Your task to perform on an android device: open chrome and create a bookmark for the current page Image 0: 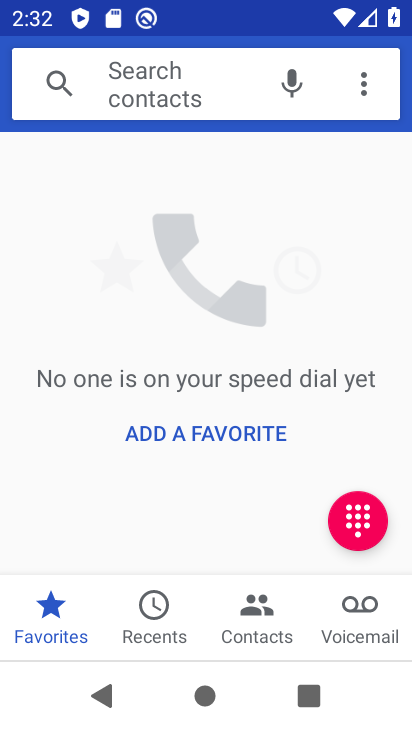
Step 0: press home button
Your task to perform on an android device: open chrome and create a bookmark for the current page Image 1: 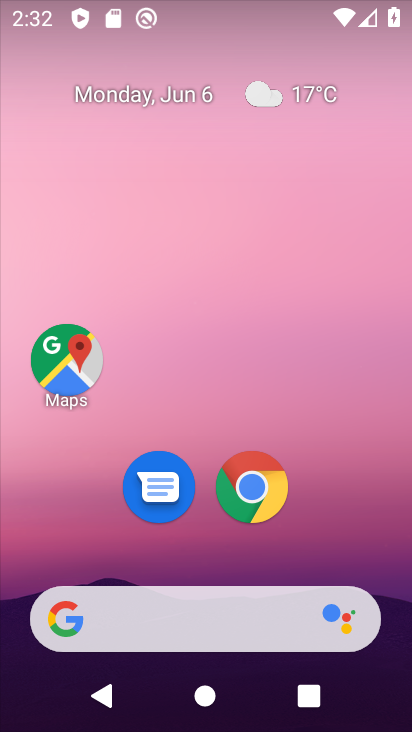
Step 1: click (216, 497)
Your task to perform on an android device: open chrome and create a bookmark for the current page Image 2: 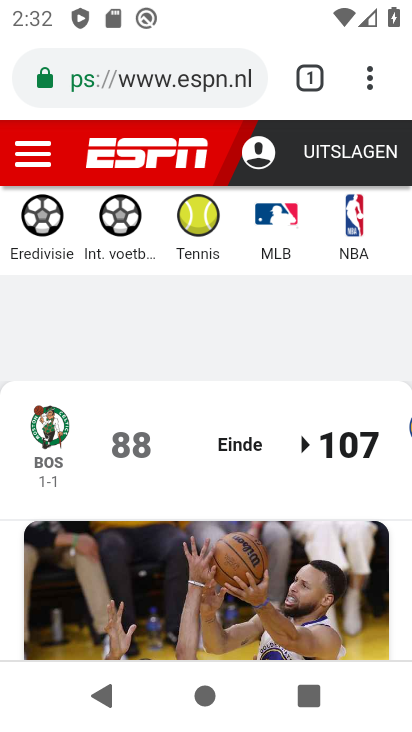
Step 2: task complete